Your task to perform on an android device: Go to Wikipedia Image 0: 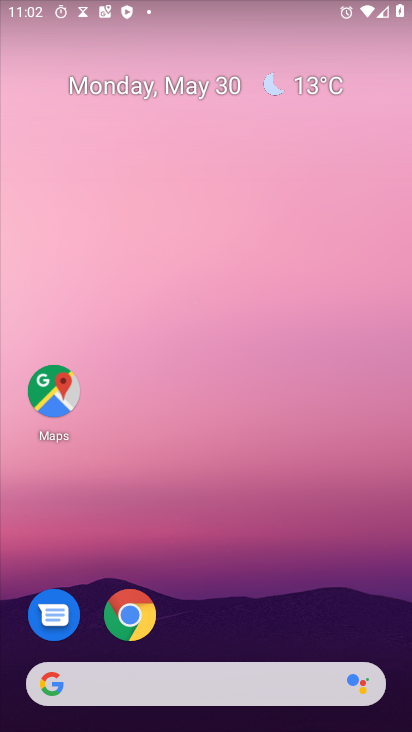
Step 0: drag from (328, 526) to (333, 54)
Your task to perform on an android device: Go to Wikipedia Image 1: 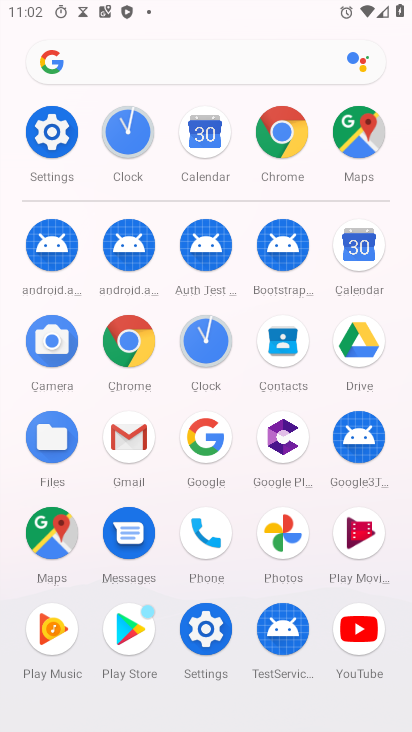
Step 1: click (292, 129)
Your task to perform on an android device: Go to Wikipedia Image 2: 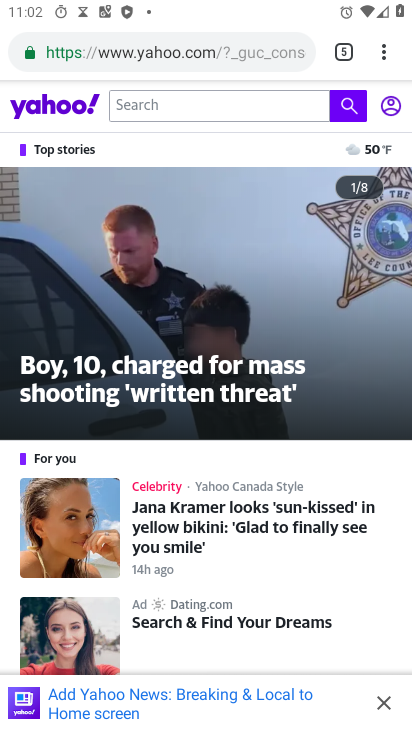
Step 2: click (123, 58)
Your task to perform on an android device: Go to Wikipedia Image 3: 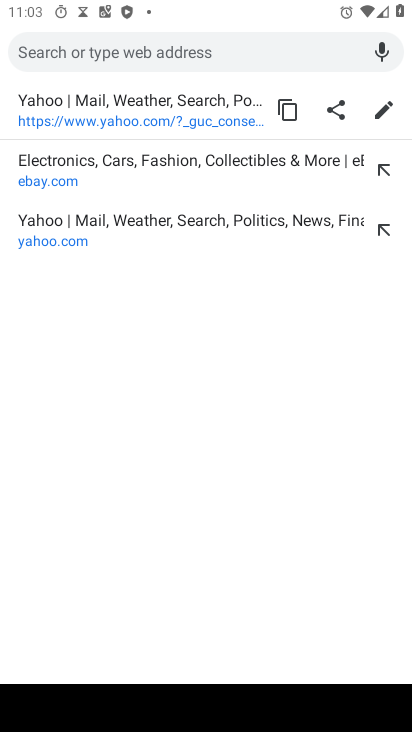
Step 3: type "wikipedia"
Your task to perform on an android device: Go to Wikipedia Image 4: 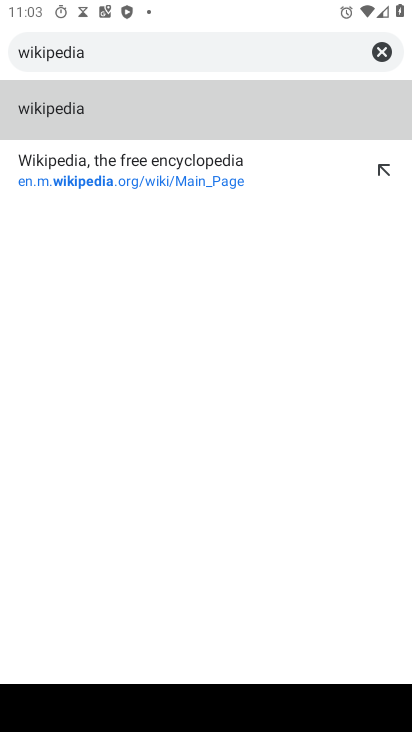
Step 4: click (97, 186)
Your task to perform on an android device: Go to Wikipedia Image 5: 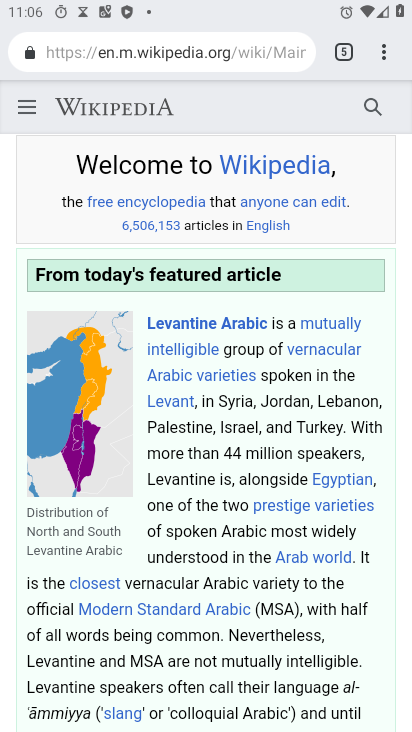
Step 5: task complete